Your task to perform on an android device: Open Chrome and go to settings Image 0: 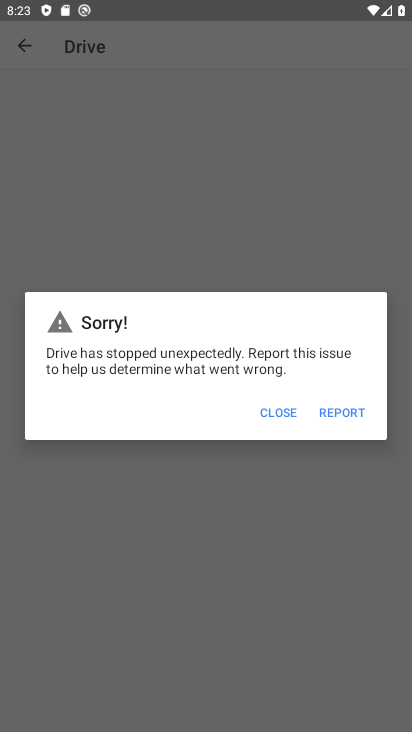
Step 0: press home button
Your task to perform on an android device: Open Chrome and go to settings Image 1: 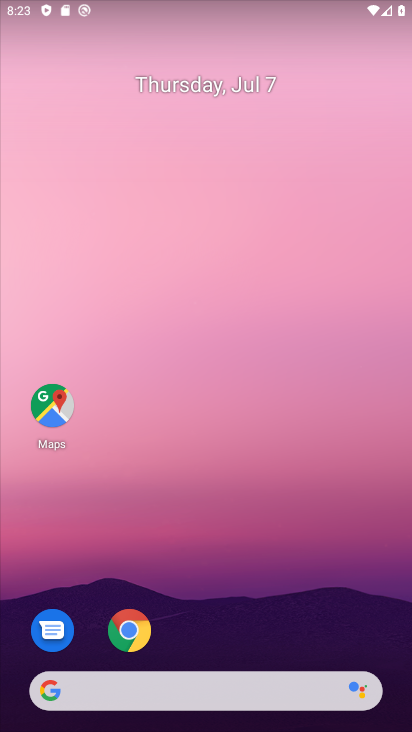
Step 1: click (112, 624)
Your task to perform on an android device: Open Chrome and go to settings Image 2: 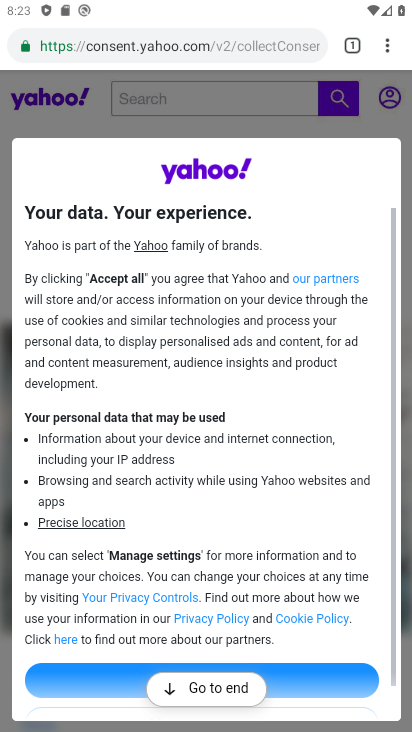
Step 2: click (383, 39)
Your task to perform on an android device: Open Chrome and go to settings Image 3: 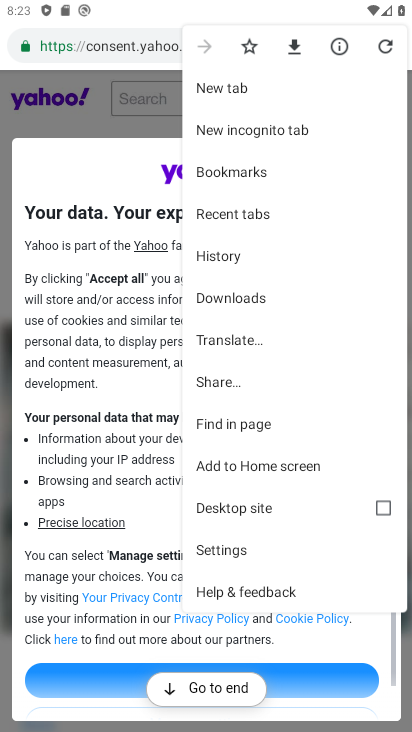
Step 3: click (235, 545)
Your task to perform on an android device: Open Chrome and go to settings Image 4: 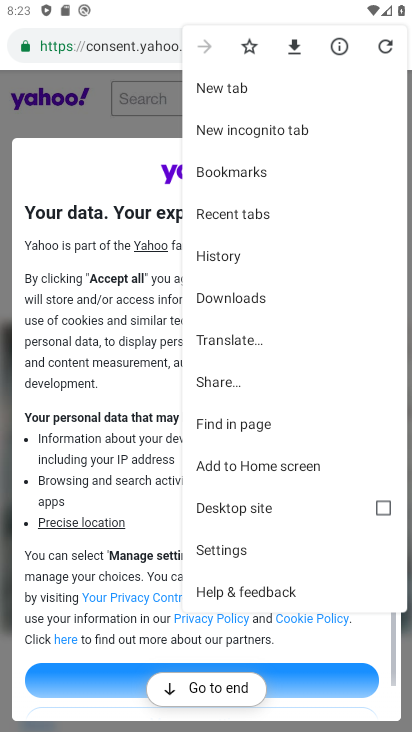
Step 4: click (235, 545)
Your task to perform on an android device: Open Chrome and go to settings Image 5: 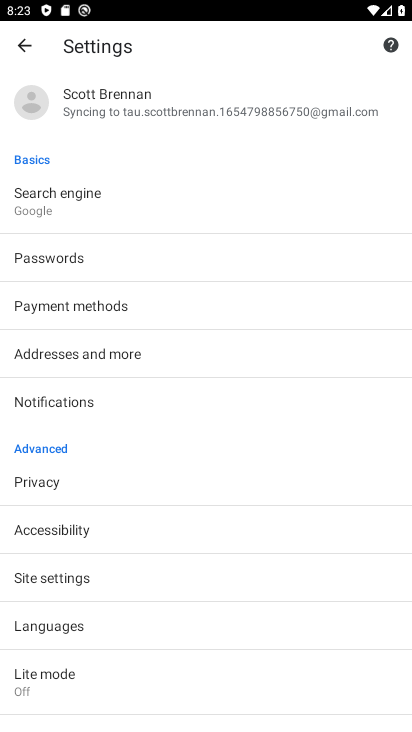
Step 5: task complete